Your task to perform on an android device: Go to Yahoo.com Image 0: 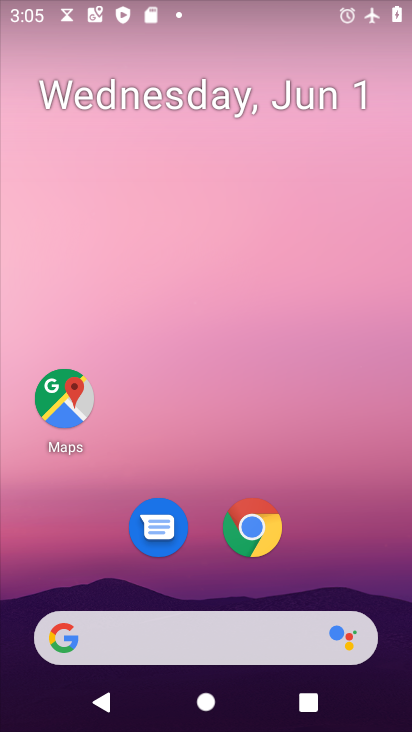
Step 0: click (252, 526)
Your task to perform on an android device: Go to Yahoo.com Image 1: 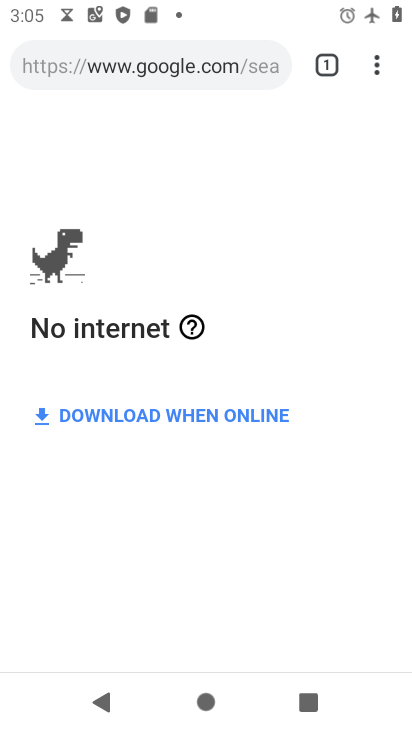
Step 1: click (197, 69)
Your task to perform on an android device: Go to Yahoo.com Image 2: 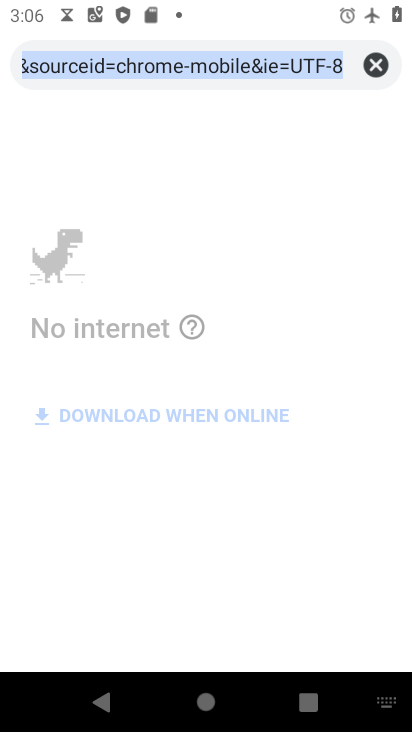
Step 2: click (374, 66)
Your task to perform on an android device: Go to Yahoo.com Image 3: 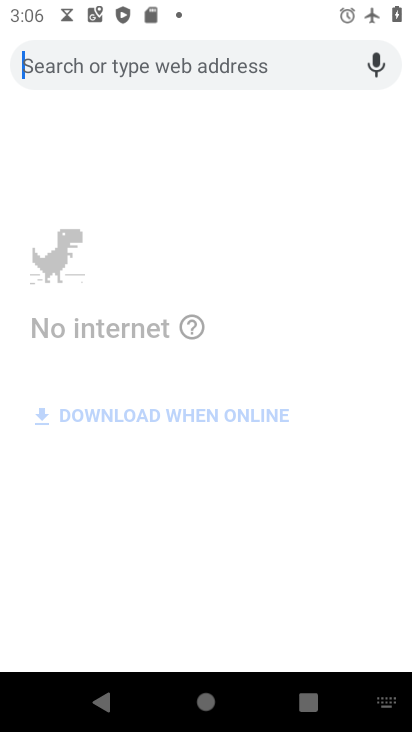
Step 3: type "Yahoo.com"
Your task to perform on an android device: Go to Yahoo.com Image 4: 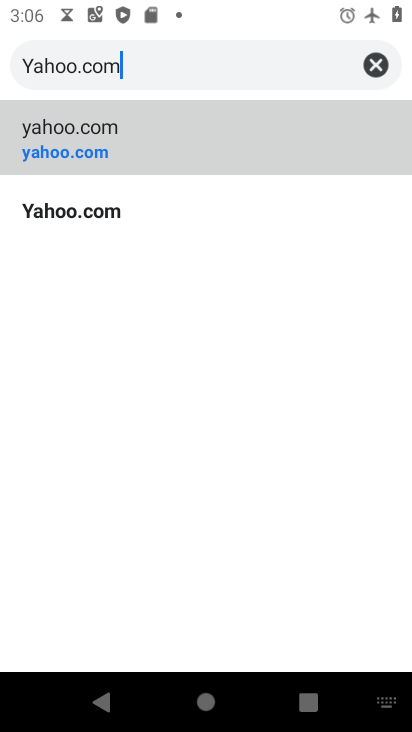
Step 4: click (103, 212)
Your task to perform on an android device: Go to Yahoo.com Image 5: 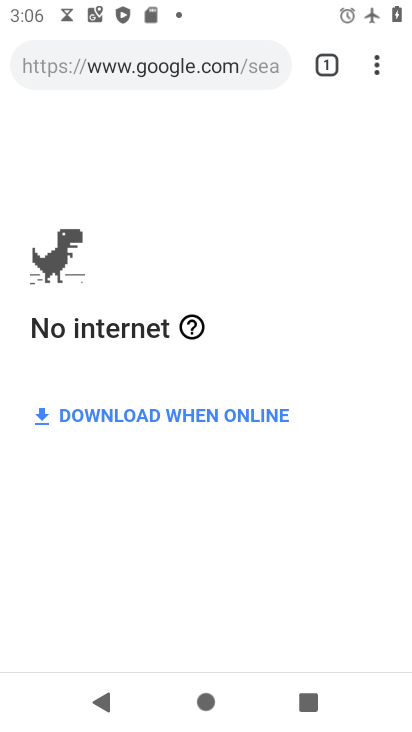
Step 5: click (259, 70)
Your task to perform on an android device: Go to Yahoo.com Image 6: 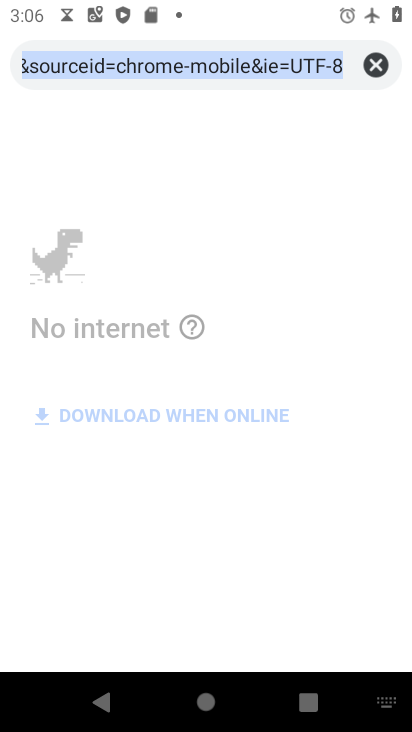
Step 6: task complete